Your task to perform on an android device: empty trash in the gmail app Image 0: 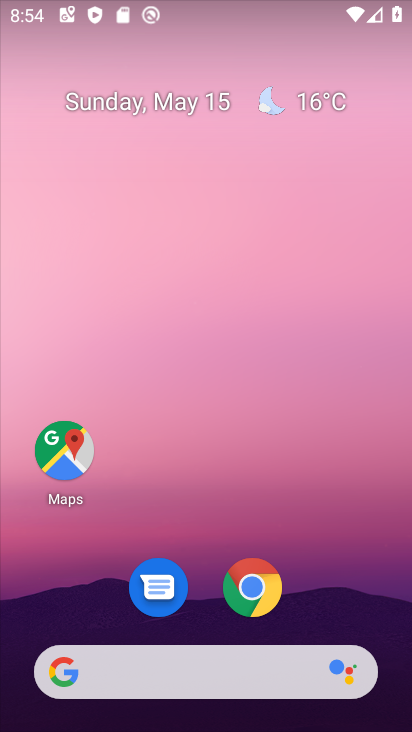
Step 0: drag from (322, 540) to (285, 129)
Your task to perform on an android device: empty trash in the gmail app Image 1: 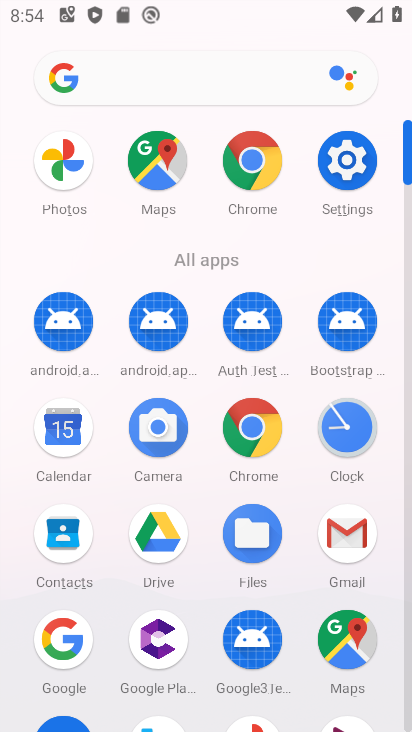
Step 1: click (358, 538)
Your task to perform on an android device: empty trash in the gmail app Image 2: 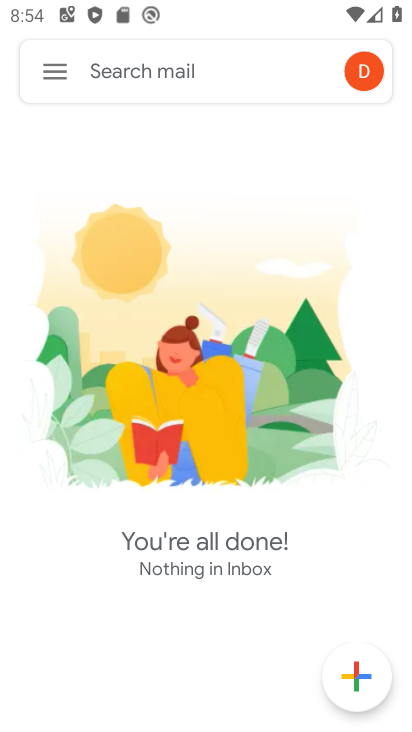
Step 2: click (45, 50)
Your task to perform on an android device: empty trash in the gmail app Image 3: 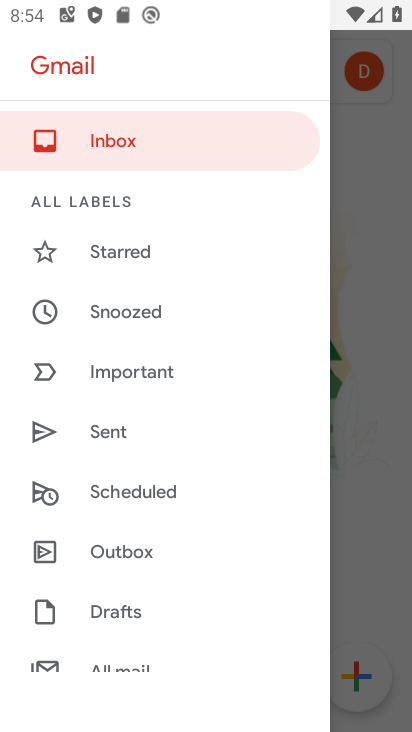
Step 3: drag from (185, 632) to (290, 97)
Your task to perform on an android device: empty trash in the gmail app Image 4: 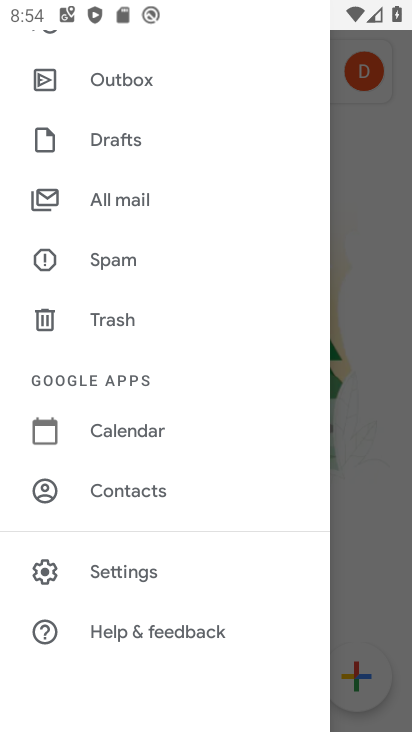
Step 4: click (113, 325)
Your task to perform on an android device: empty trash in the gmail app Image 5: 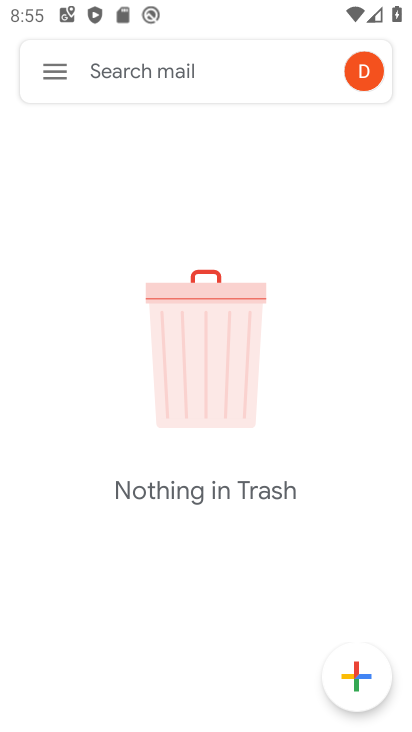
Step 5: task complete